Your task to perform on an android device: change the clock style Image 0: 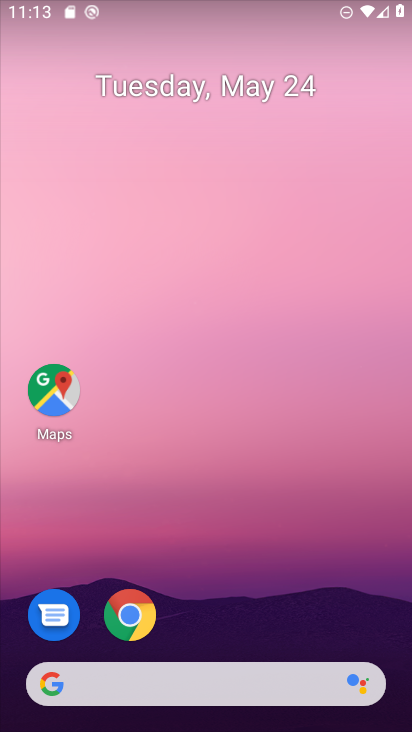
Step 0: press home button
Your task to perform on an android device: change the clock style Image 1: 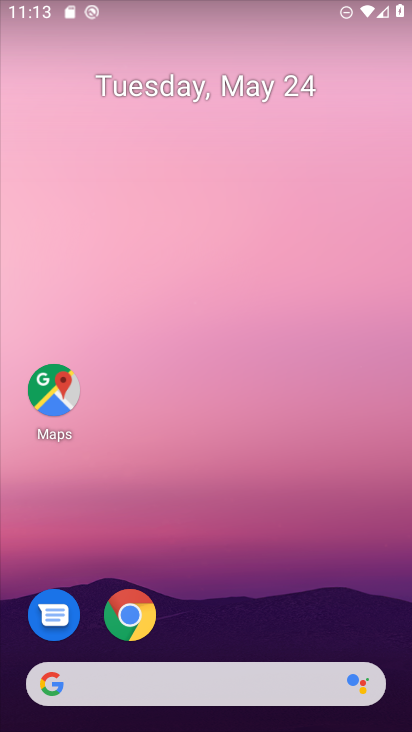
Step 1: drag from (247, 702) to (225, 4)
Your task to perform on an android device: change the clock style Image 2: 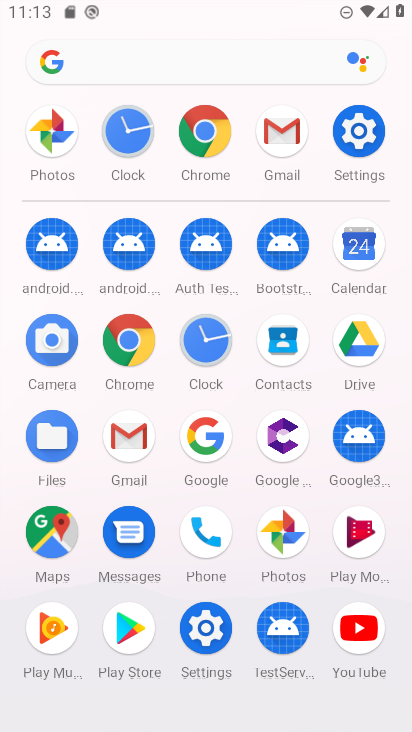
Step 2: click (133, 135)
Your task to perform on an android device: change the clock style Image 3: 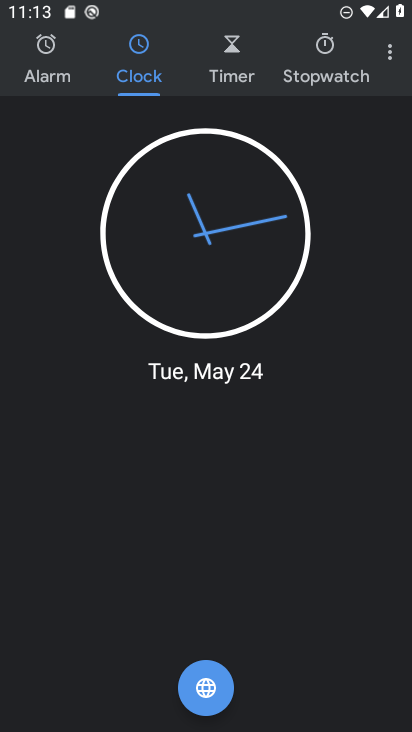
Step 3: click (386, 45)
Your task to perform on an android device: change the clock style Image 4: 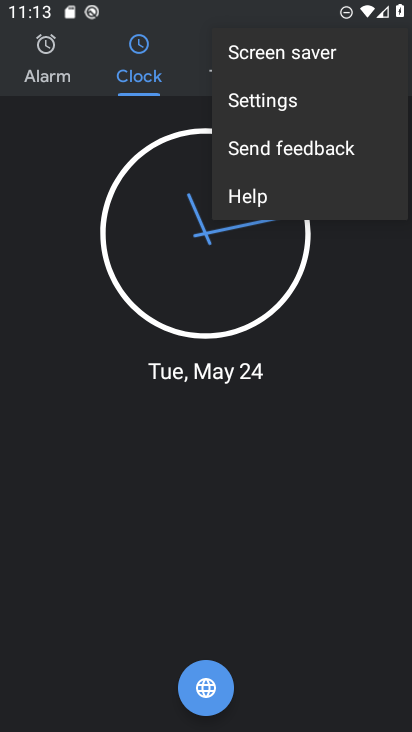
Step 4: click (280, 99)
Your task to perform on an android device: change the clock style Image 5: 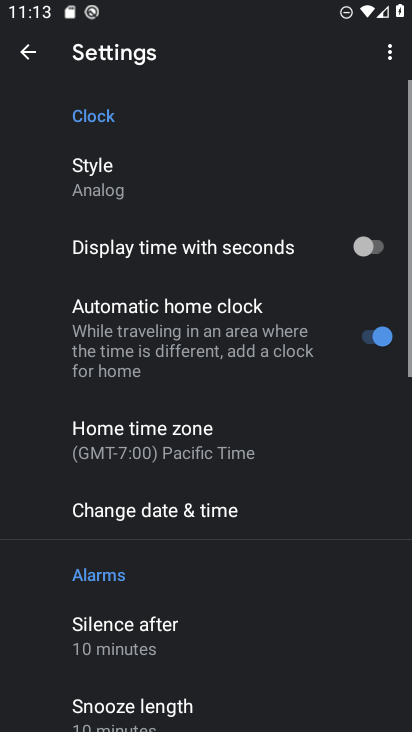
Step 5: click (134, 168)
Your task to perform on an android device: change the clock style Image 6: 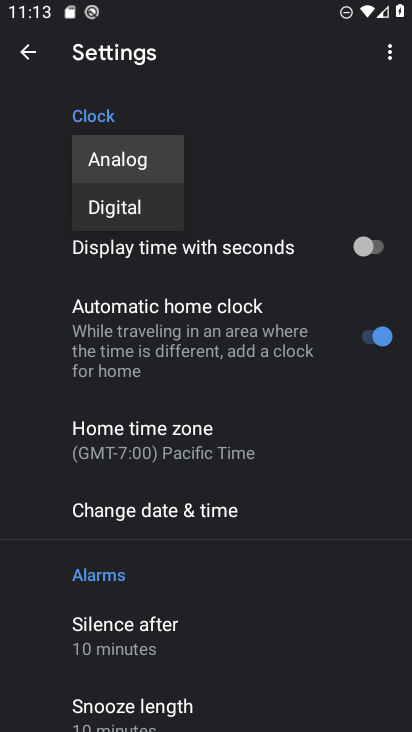
Step 6: click (141, 198)
Your task to perform on an android device: change the clock style Image 7: 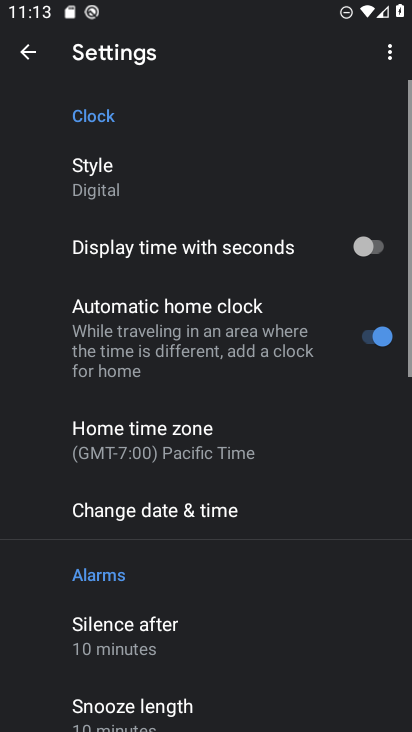
Step 7: task complete